Your task to perform on an android device: Open Chrome and go to the settings page Image 0: 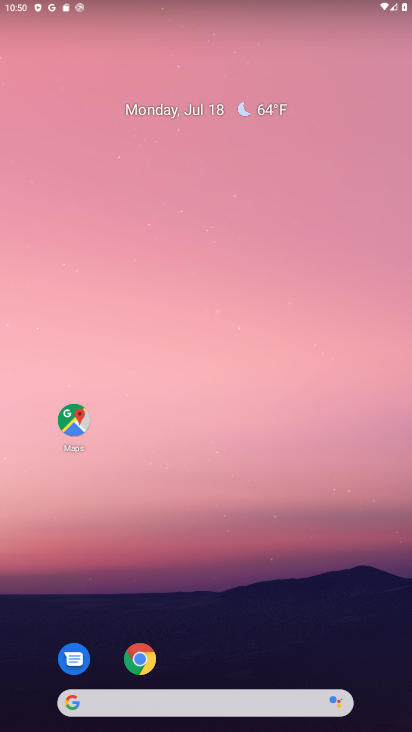
Step 0: press home button
Your task to perform on an android device: Open Chrome and go to the settings page Image 1: 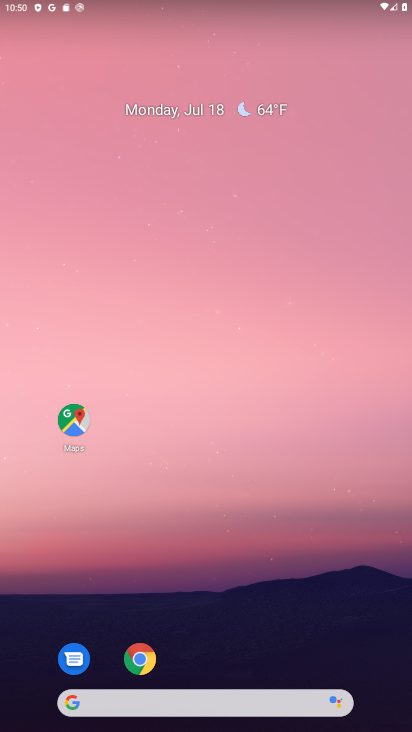
Step 1: drag from (277, 679) to (252, 646)
Your task to perform on an android device: Open Chrome and go to the settings page Image 2: 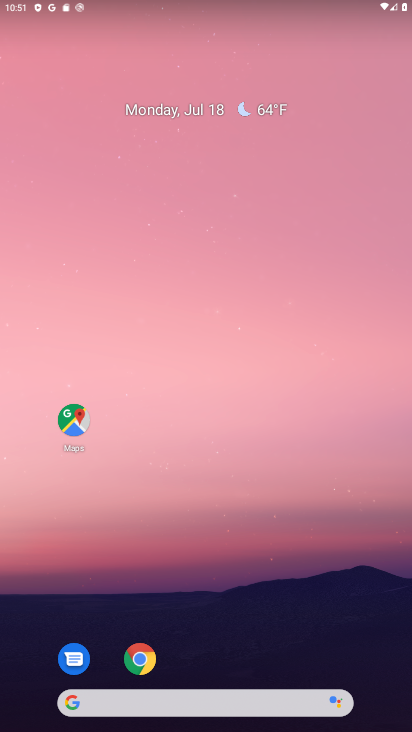
Step 2: click (156, 648)
Your task to perform on an android device: Open Chrome and go to the settings page Image 3: 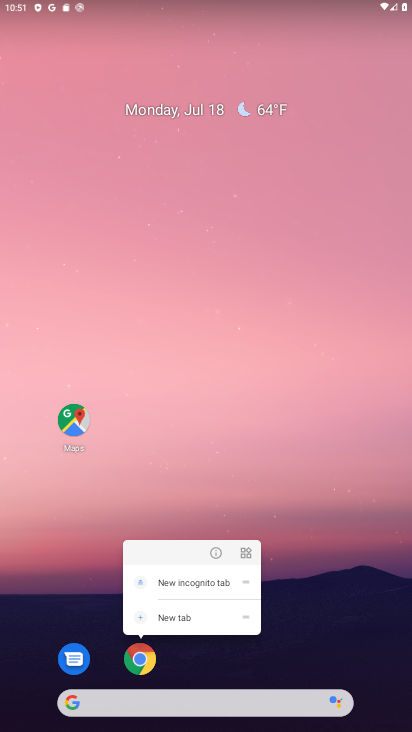
Step 3: click (156, 648)
Your task to perform on an android device: Open Chrome and go to the settings page Image 4: 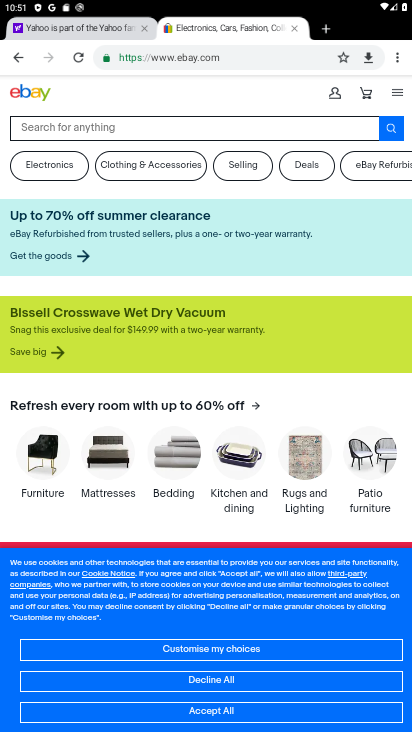
Step 4: task complete